Your task to perform on an android device: Open Google Chrome and click the shortcut for Amazon.com Image 0: 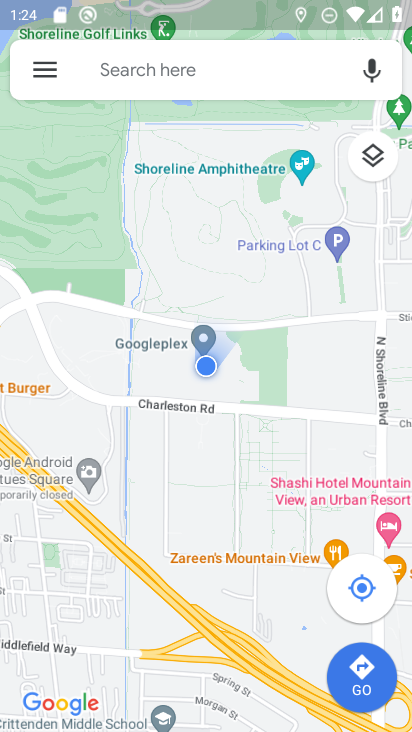
Step 0: press back button
Your task to perform on an android device: Open Google Chrome and click the shortcut for Amazon.com Image 1: 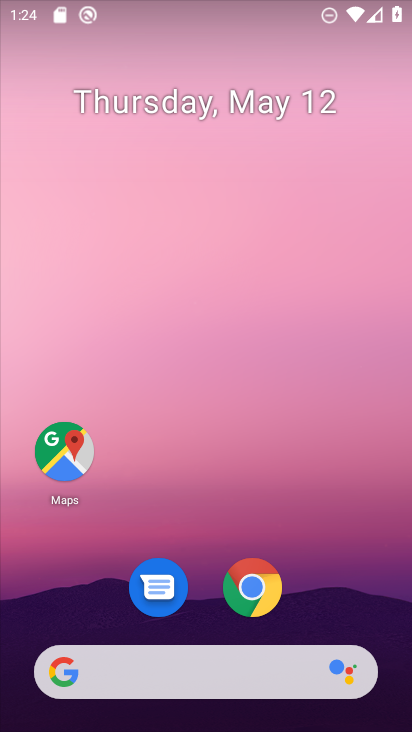
Step 1: click (249, 587)
Your task to perform on an android device: Open Google Chrome and click the shortcut for Amazon.com Image 2: 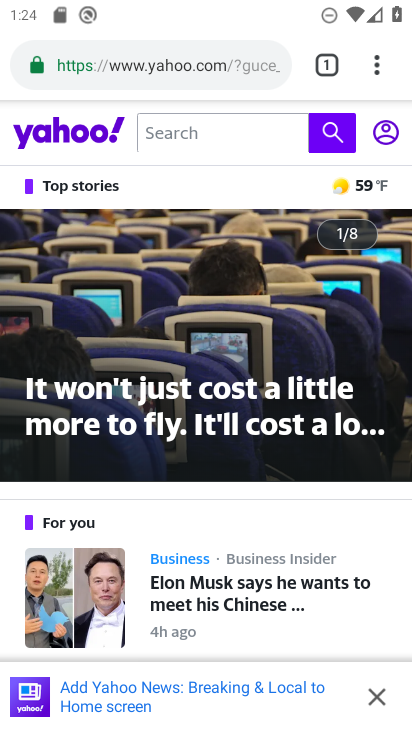
Step 2: click (229, 71)
Your task to perform on an android device: Open Google Chrome and click the shortcut for Amazon.com Image 3: 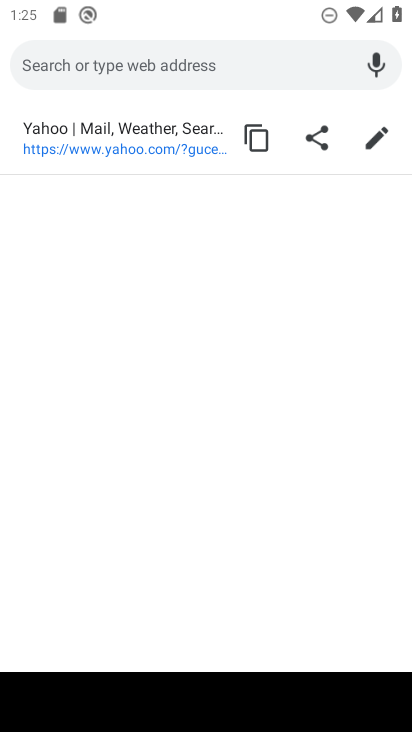
Step 3: type "Amazon.com"
Your task to perform on an android device: Open Google Chrome and click the shortcut for Amazon.com Image 4: 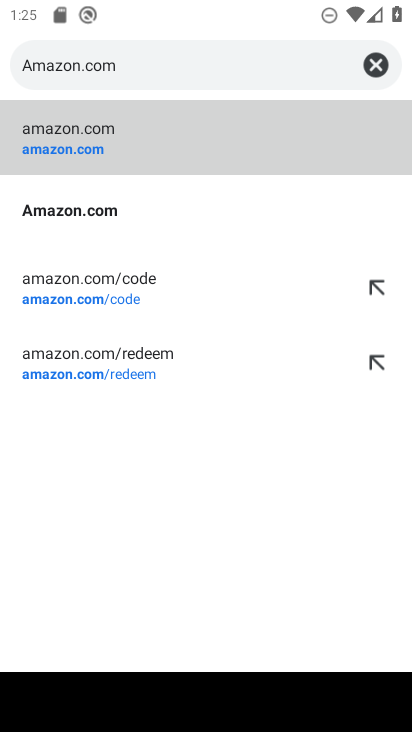
Step 4: click (110, 219)
Your task to perform on an android device: Open Google Chrome and click the shortcut for Amazon.com Image 5: 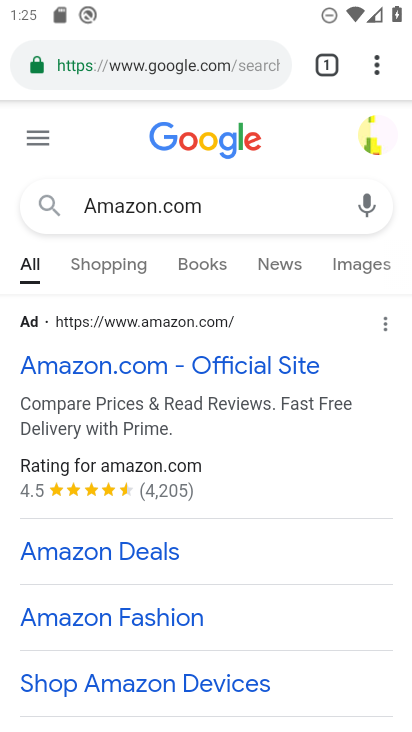
Step 5: click (116, 365)
Your task to perform on an android device: Open Google Chrome and click the shortcut for Amazon.com Image 6: 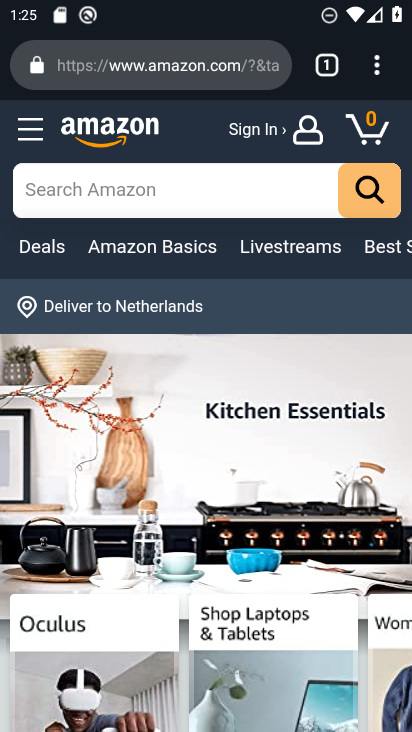
Step 6: click (380, 69)
Your task to perform on an android device: Open Google Chrome and click the shortcut for Amazon.com Image 7: 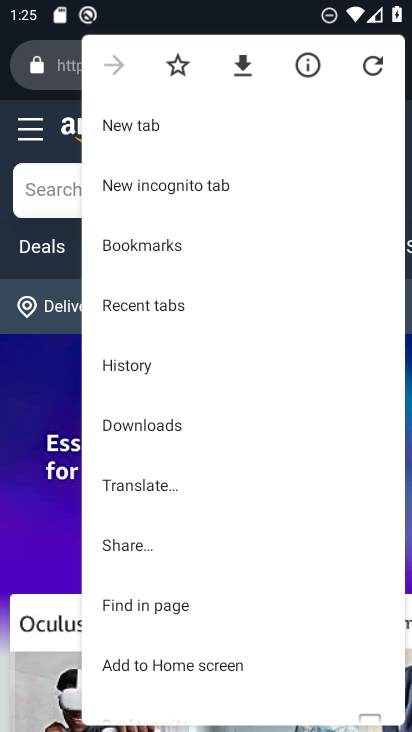
Step 7: click (223, 660)
Your task to perform on an android device: Open Google Chrome and click the shortcut for Amazon.com Image 8: 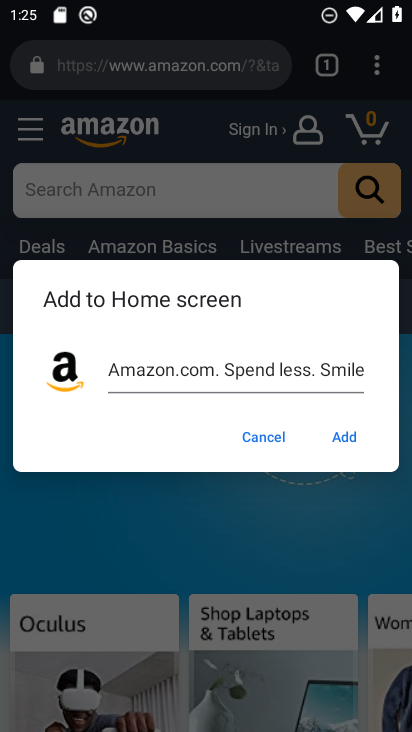
Step 8: click (349, 439)
Your task to perform on an android device: Open Google Chrome and click the shortcut for Amazon.com Image 9: 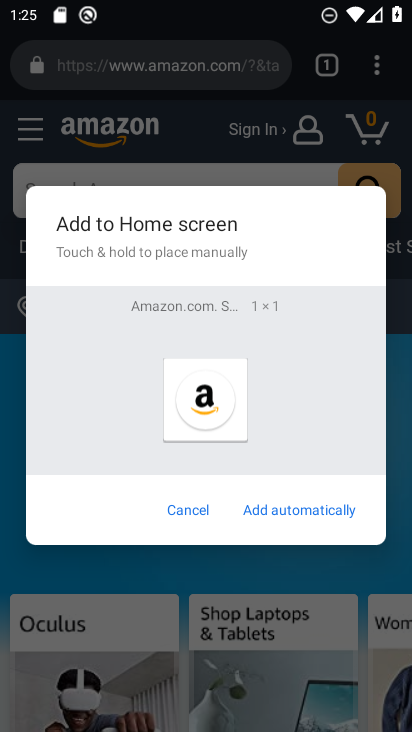
Step 9: click (313, 503)
Your task to perform on an android device: Open Google Chrome and click the shortcut for Amazon.com Image 10: 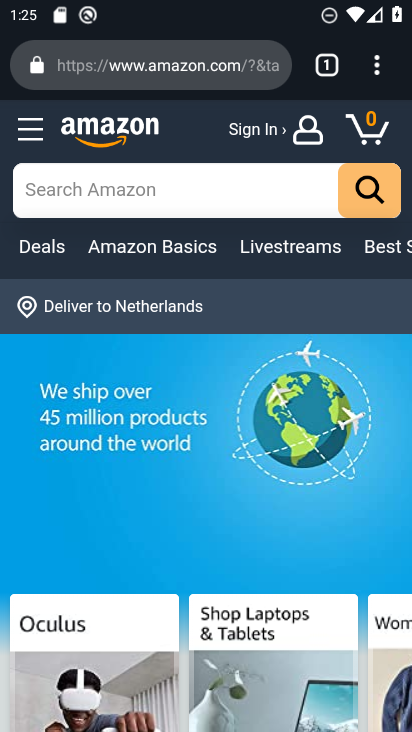
Step 10: task complete